Your task to perform on an android device: move a message to another label in the gmail app Image 0: 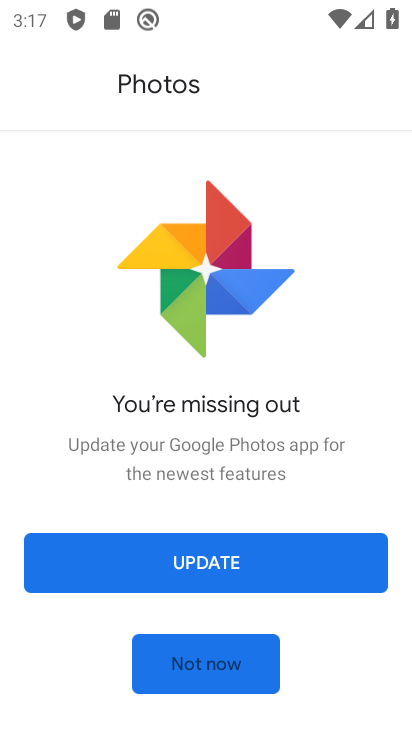
Step 0: press home button
Your task to perform on an android device: move a message to another label in the gmail app Image 1: 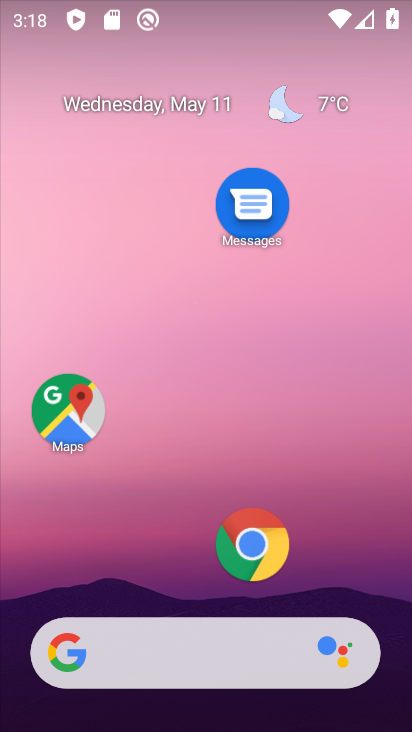
Step 1: drag from (198, 572) to (271, 52)
Your task to perform on an android device: move a message to another label in the gmail app Image 2: 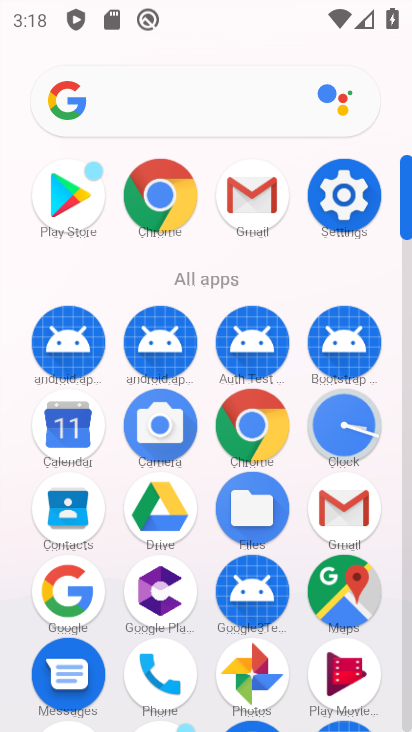
Step 2: click (251, 191)
Your task to perform on an android device: move a message to another label in the gmail app Image 3: 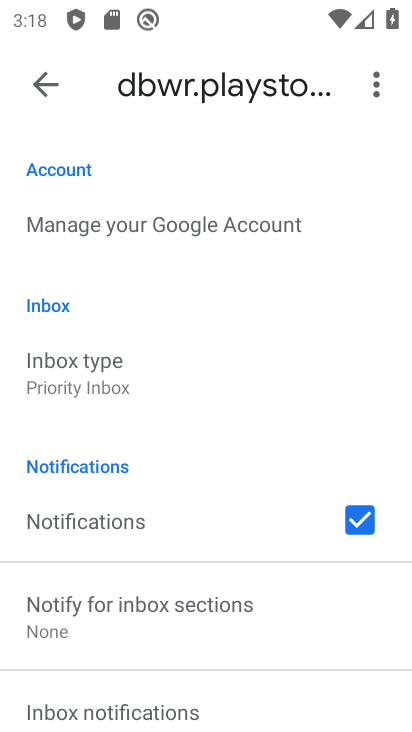
Step 3: press back button
Your task to perform on an android device: move a message to another label in the gmail app Image 4: 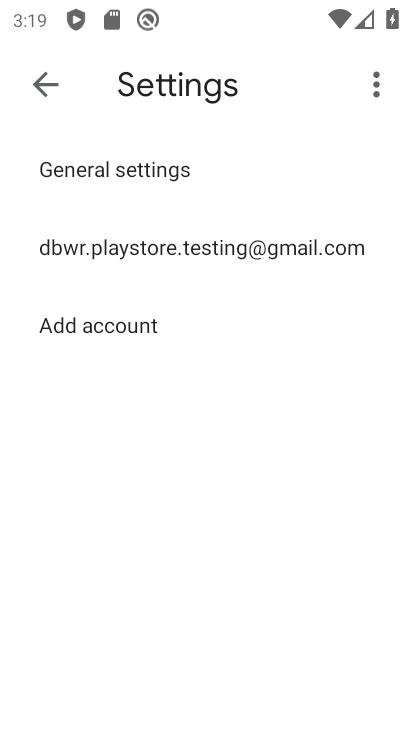
Step 4: press home button
Your task to perform on an android device: move a message to another label in the gmail app Image 5: 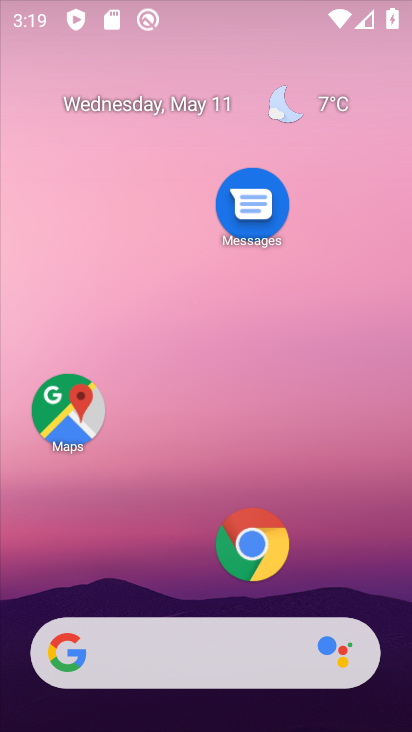
Step 5: drag from (159, 527) to (277, 60)
Your task to perform on an android device: move a message to another label in the gmail app Image 6: 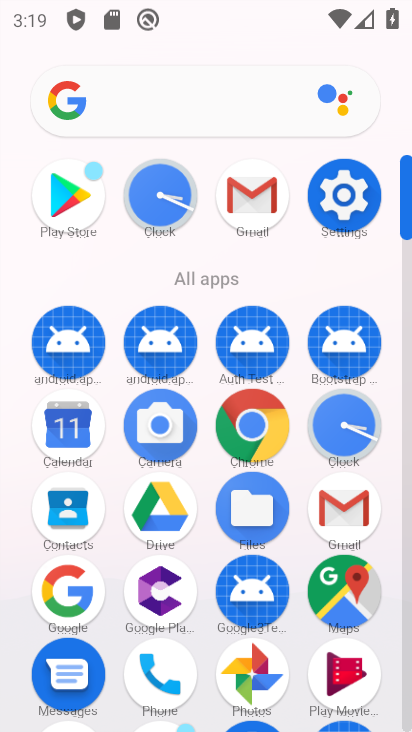
Step 6: click (252, 196)
Your task to perform on an android device: move a message to another label in the gmail app Image 7: 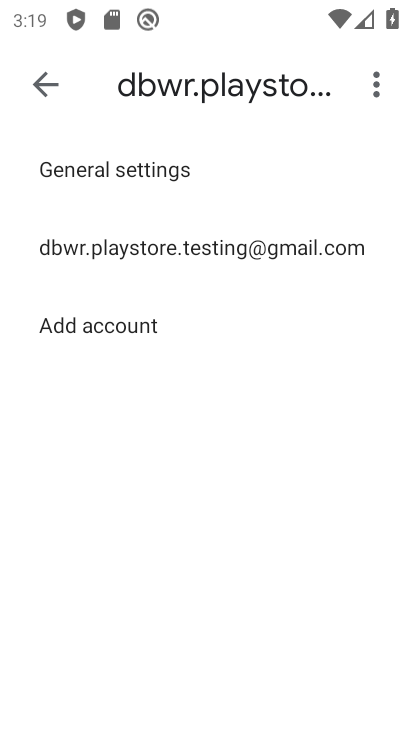
Step 7: click (46, 79)
Your task to perform on an android device: move a message to another label in the gmail app Image 8: 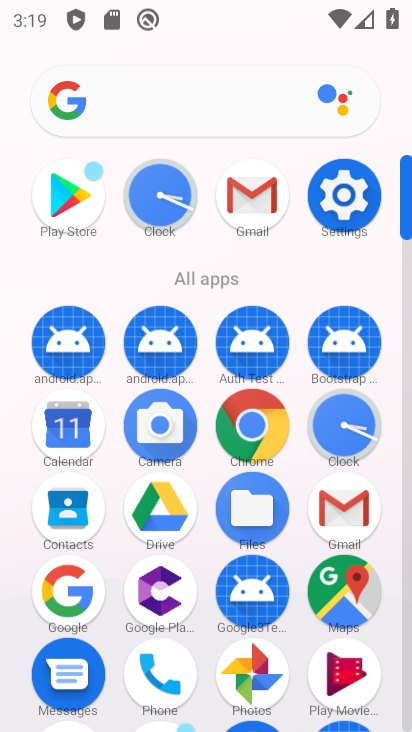
Step 8: click (244, 197)
Your task to perform on an android device: move a message to another label in the gmail app Image 9: 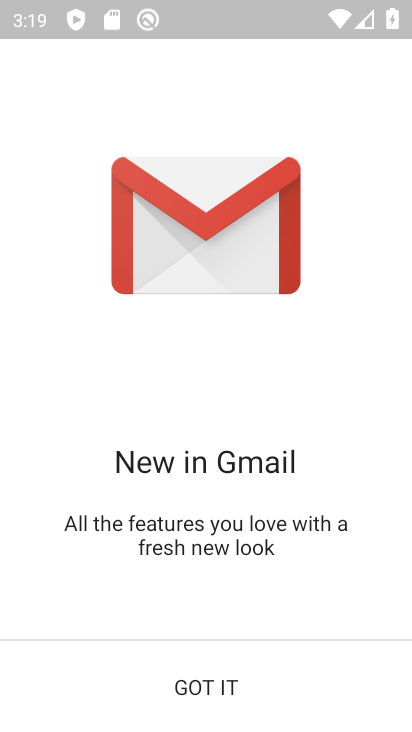
Step 9: click (205, 689)
Your task to perform on an android device: move a message to another label in the gmail app Image 10: 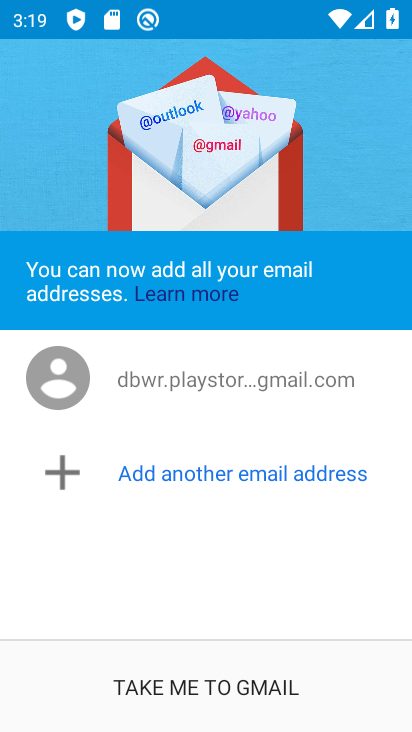
Step 10: click (208, 676)
Your task to perform on an android device: move a message to another label in the gmail app Image 11: 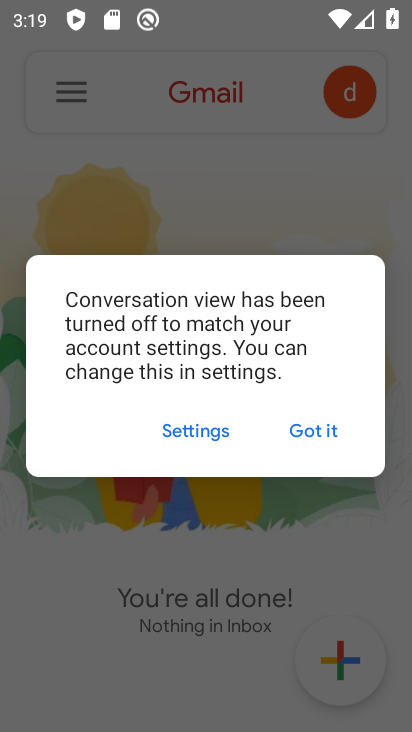
Step 11: click (290, 434)
Your task to perform on an android device: move a message to another label in the gmail app Image 12: 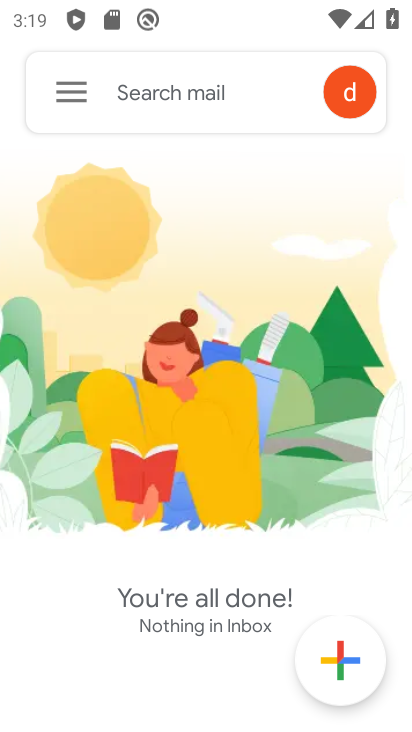
Step 12: click (72, 95)
Your task to perform on an android device: move a message to another label in the gmail app Image 13: 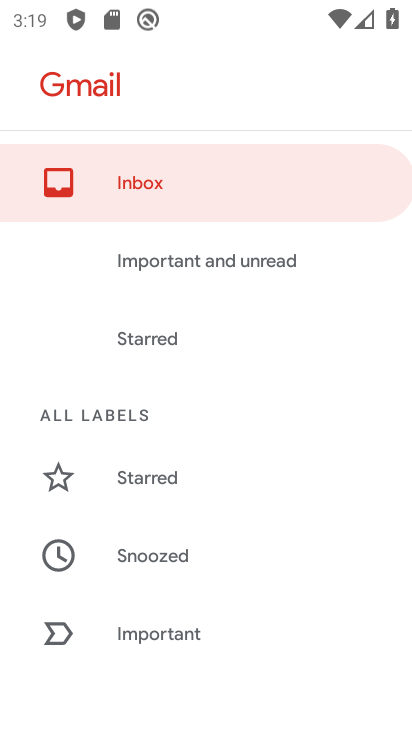
Step 13: drag from (168, 588) to (280, 132)
Your task to perform on an android device: move a message to another label in the gmail app Image 14: 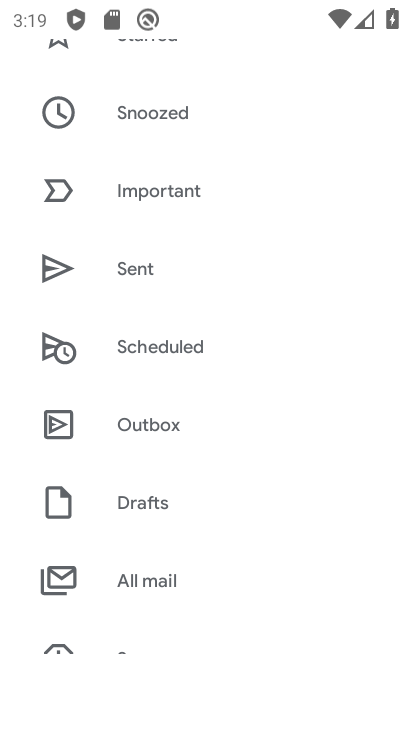
Step 14: click (148, 573)
Your task to perform on an android device: move a message to another label in the gmail app Image 15: 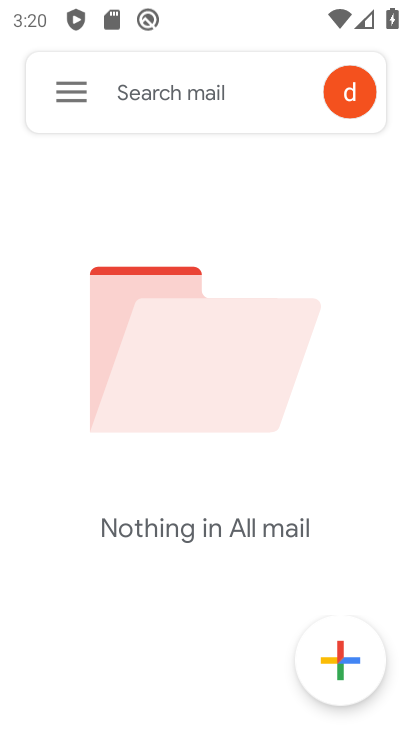
Step 15: click (67, 95)
Your task to perform on an android device: move a message to another label in the gmail app Image 16: 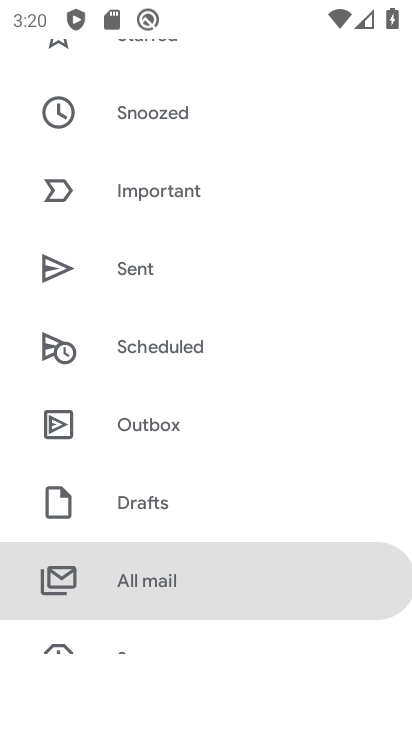
Step 16: task complete